Your task to perform on an android device: toggle airplane mode Image 0: 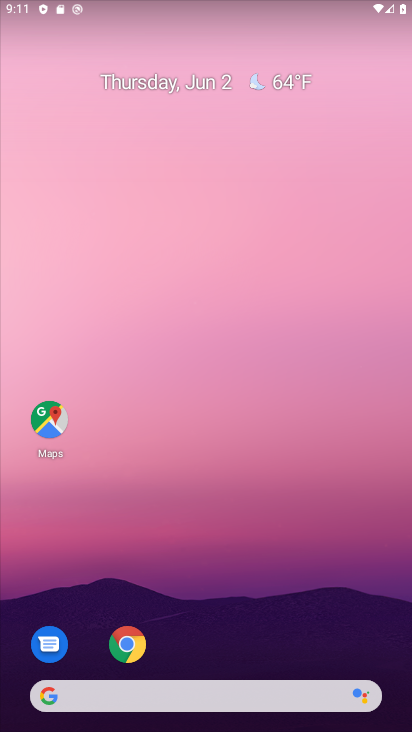
Step 0: drag from (376, 6) to (187, 724)
Your task to perform on an android device: toggle airplane mode Image 1: 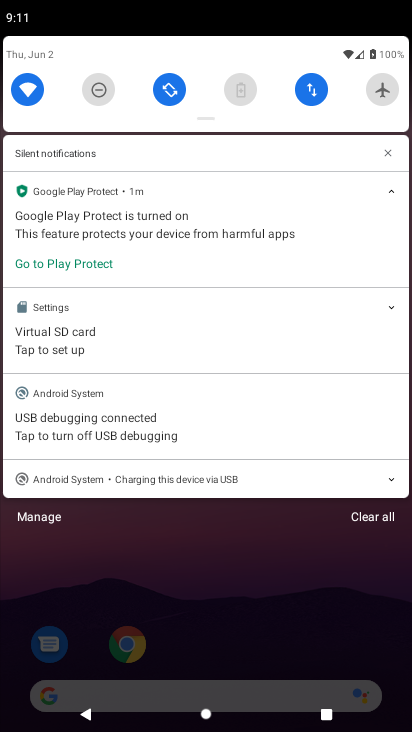
Step 1: click (389, 94)
Your task to perform on an android device: toggle airplane mode Image 2: 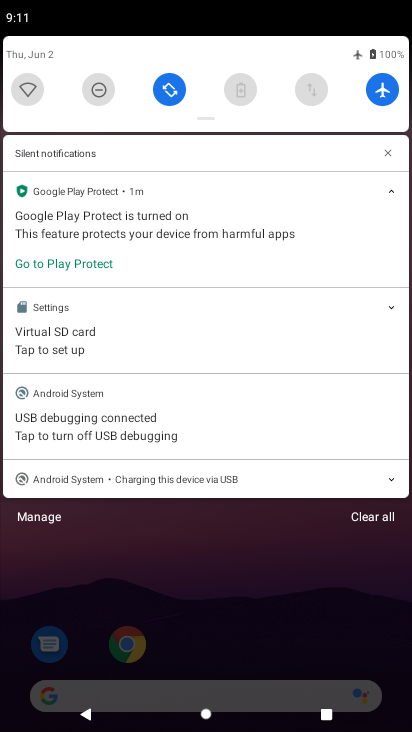
Step 2: task complete